Your task to perform on an android device: change timer sound Image 0: 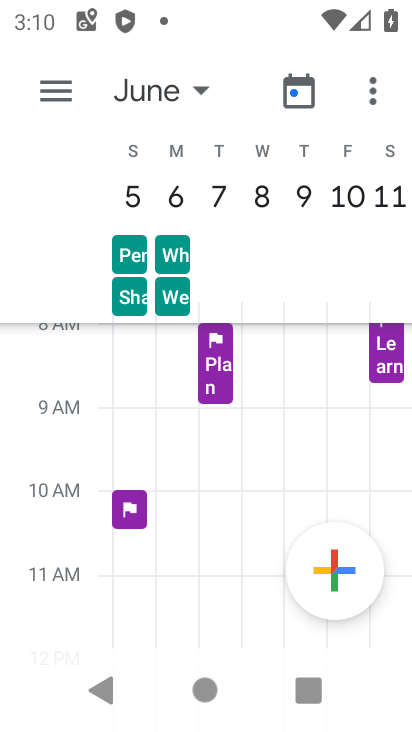
Step 0: press home button
Your task to perform on an android device: change timer sound Image 1: 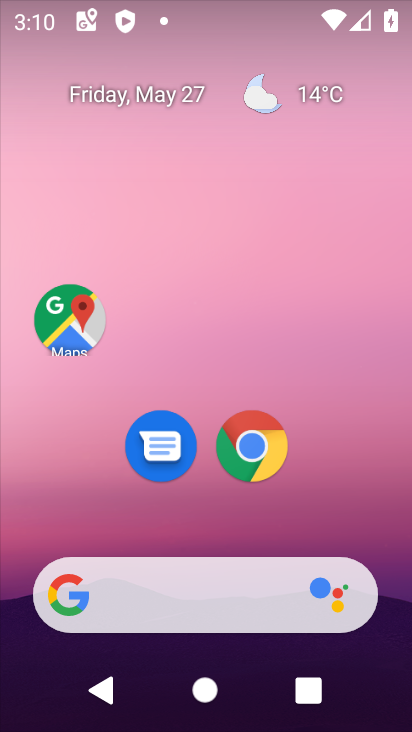
Step 1: drag from (199, 604) to (292, 103)
Your task to perform on an android device: change timer sound Image 2: 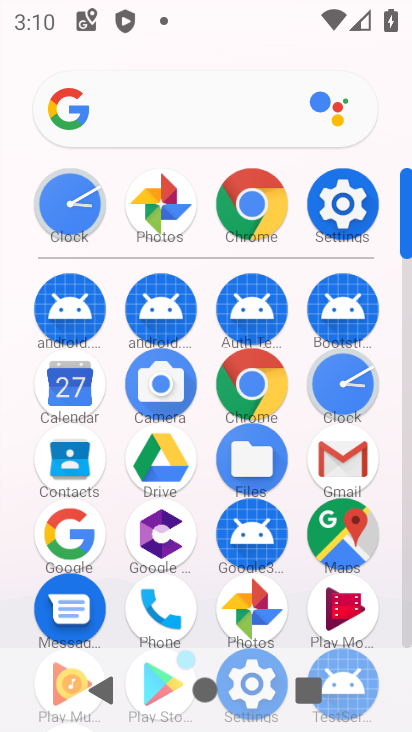
Step 2: click (334, 384)
Your task to perform on an android device: change timer sound Image 3: 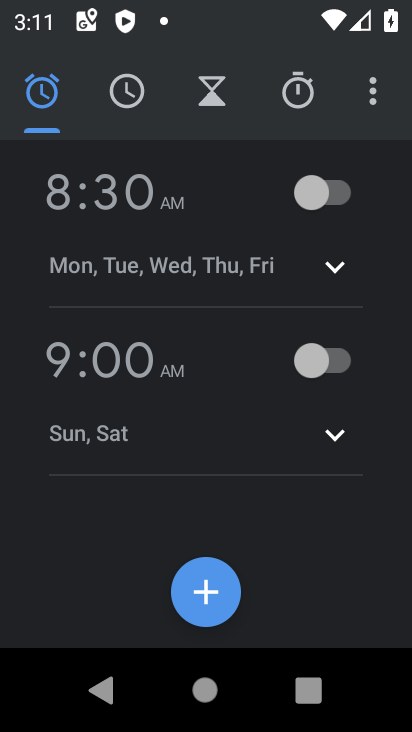
Step 3: click (377, 99)
Your task to perform on an android device: change timer sound Image 4: 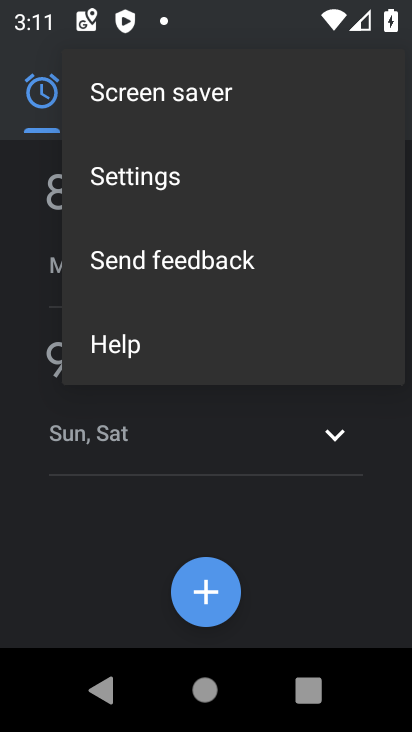
Step 4: click (146, 176)
Your task to perform on an android device: change timer sound Image 5: 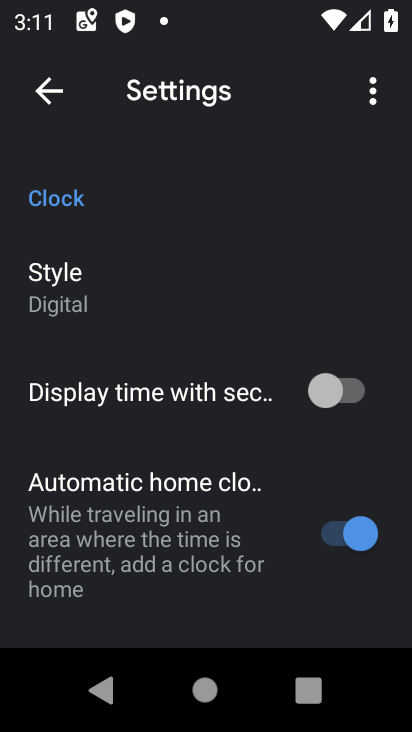
Step 5: drag from (238, 583) to (323, 91)
Your task to perform on an android device: change timer sound Image 6: 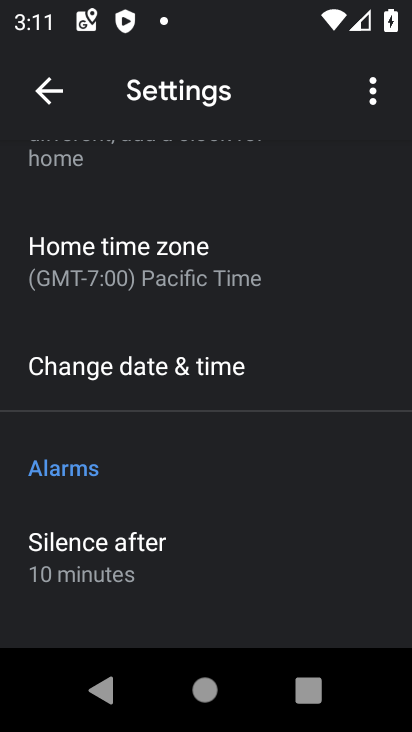
Step 6: drag from (212, 519) to (303, 41)
Your task to perform on an android device: change timer sound Image 7: 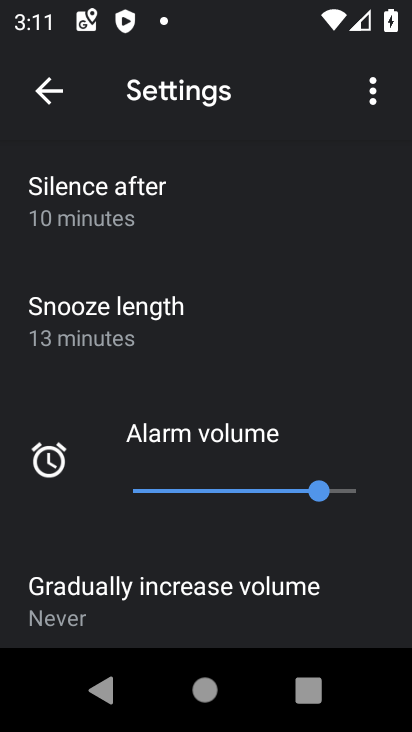
Step 7: drag from (192, 544) to (338, 117)
Your task to perform on an android device: change timer sound Image 8: 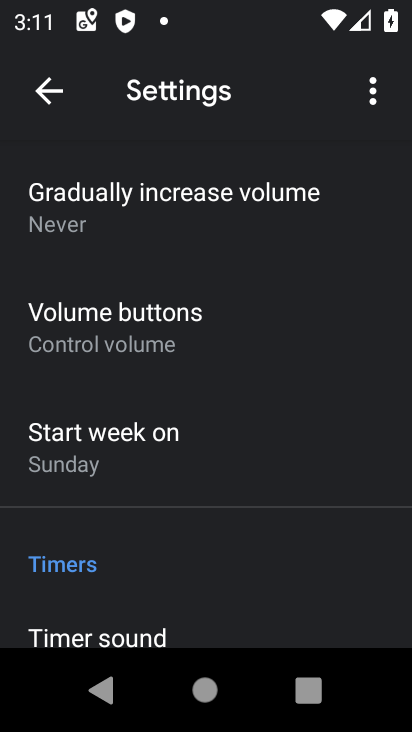
Step 8: drag from (264, 355) to (340, 169)
Your task to perform on an android device: change timer sound Image 9: 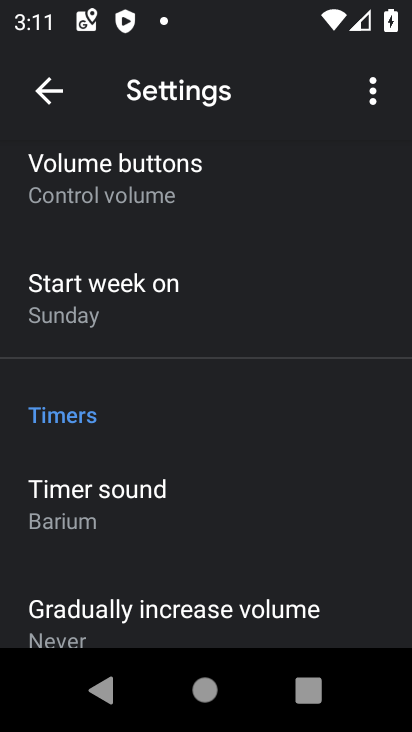
Step 9: click (99, 509)
Your task to perform on an android device: change timer sound Image 10: 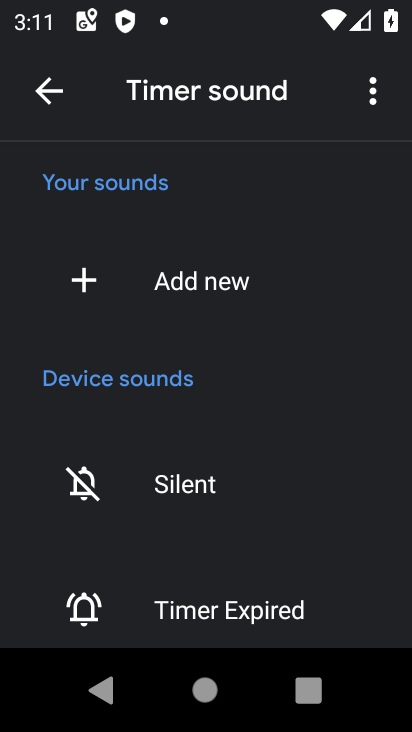
Step 10: drag from (251, 603) to (394, 97)
Your task to perform on an android device: change timer sound Image 11: 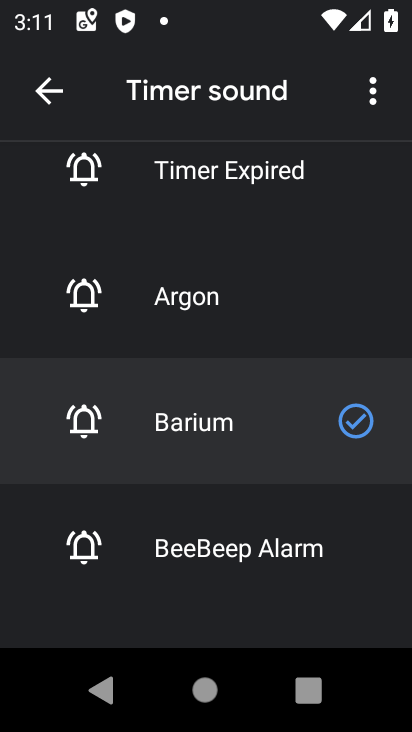
Step 11: click (235, 548)
Your task to perform on an android device: change timer sound Image 12: 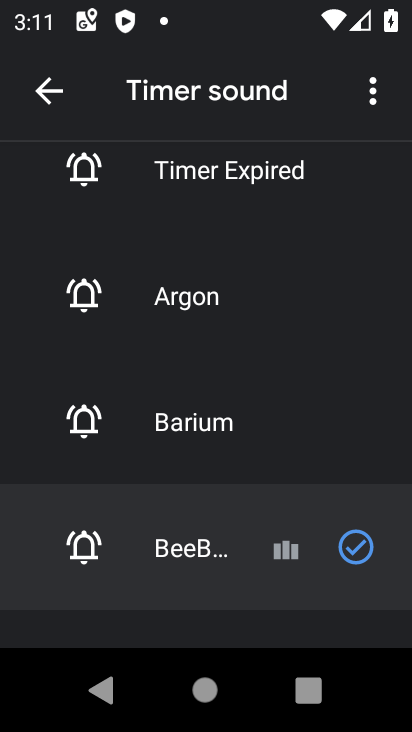
Step 12: task complete